Your task to perform on an android device: Open location settings Image 0: 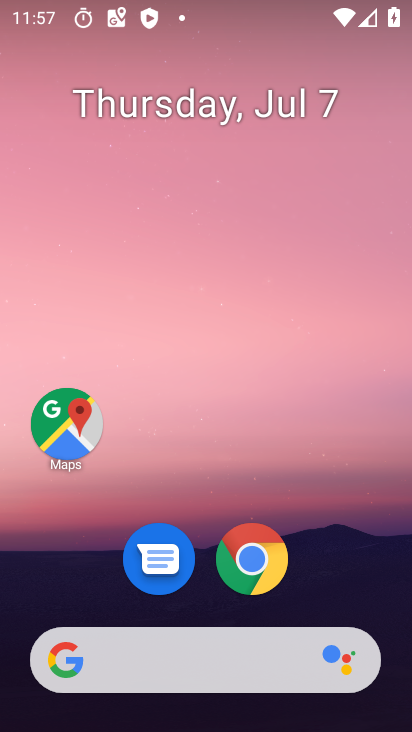
Step 0: drag from (358, 574) to (349, 151)
Your task to perform on an android device: Open location settings Image 1: 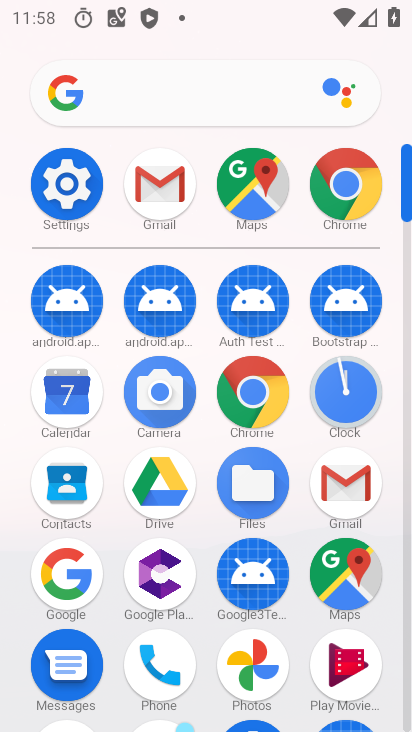
Step 1: click (77, 186)
Your task to perform on an android device: Open location settings Image 2: 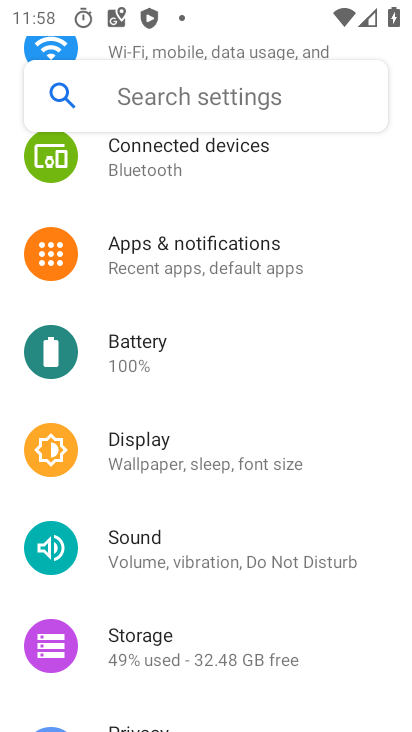
Step 2: drag from (352, 248) to (343, 339)
Your task to perform on an android device: Open location settings Image 3: 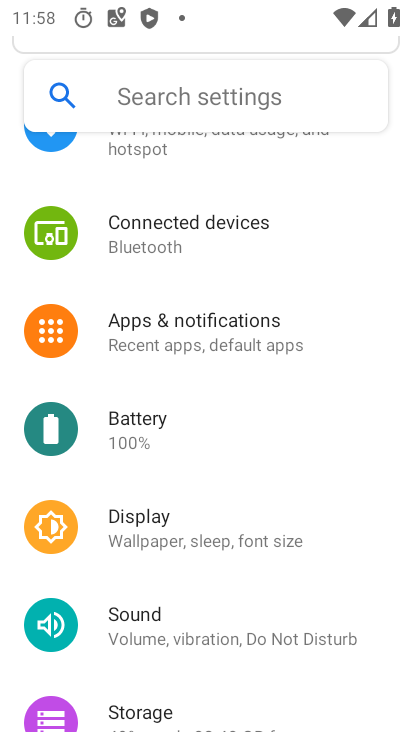
Step 3: drag from (350, 258) to (350, 386)
Your task to perform on an android device: Open location settings Image 4: 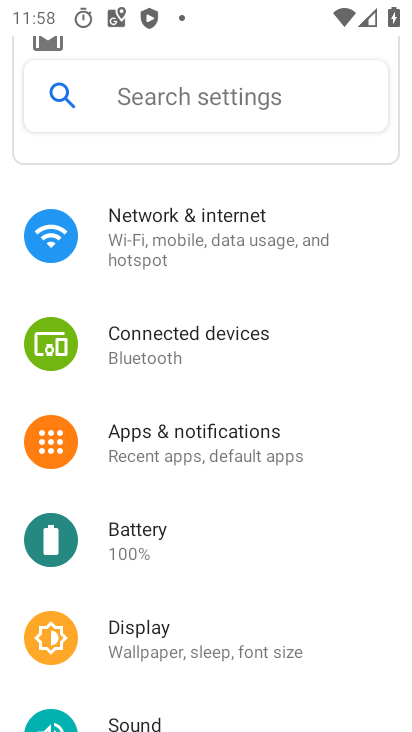
Step 4: drag from (355, 222) to (355, 386)
Your task to perform on an android device: Open location settings Image 5: 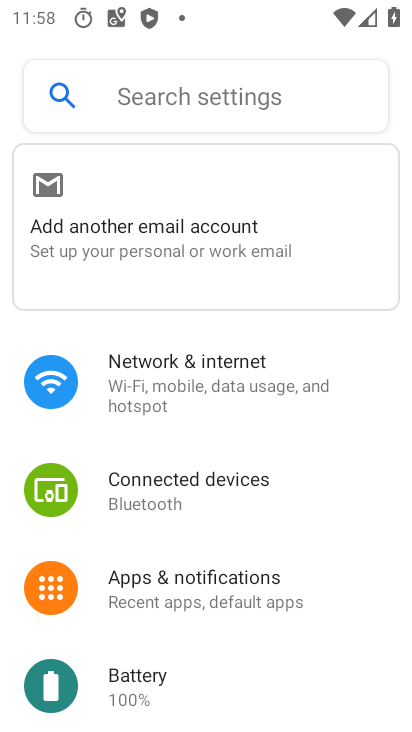
Step 5: drag from (346, 201) to (346, 387)
Your task to perform on an android device: Open location settings Image 6: 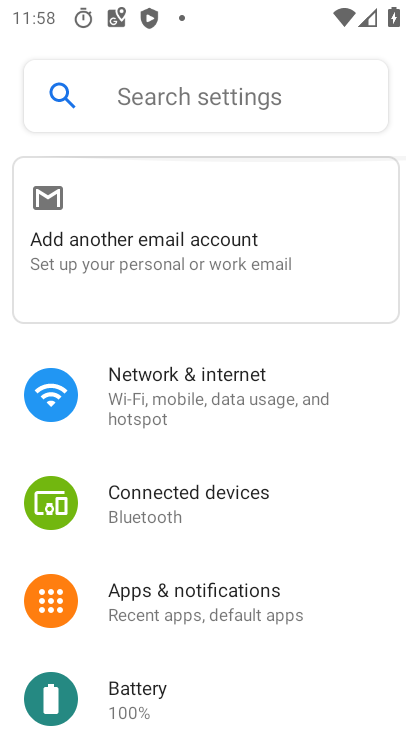
Step 6: drag from (351, 520) to (366, 406)
Your task to perform on an android device: Open location settings Image 7: 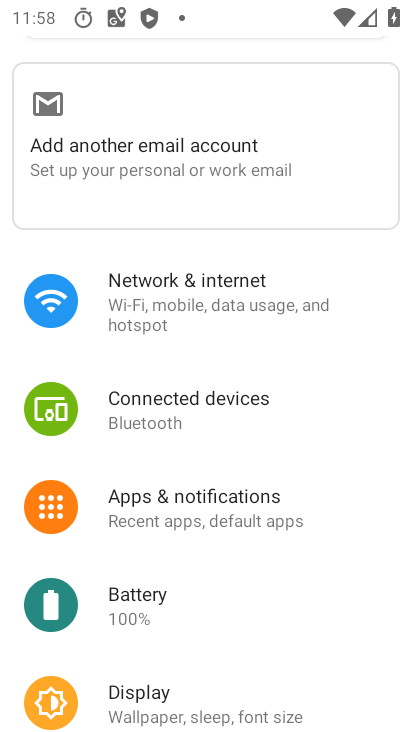
Step 7: drag from (365, 491) to (359, 400)
Your task to perform on an android device: Open location settings Image 8: 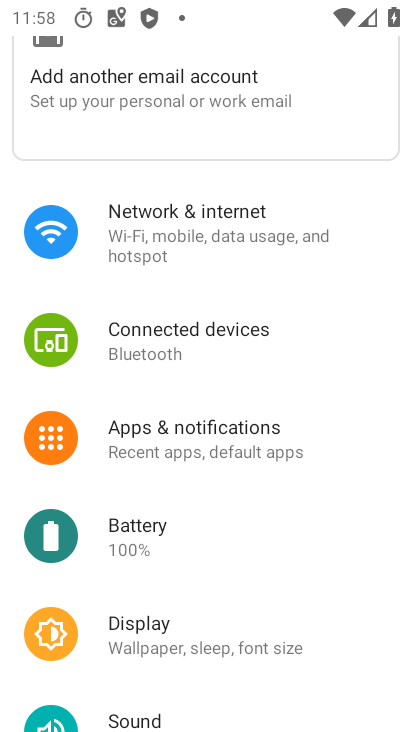
Step 8: drag from (356, 512) to (350, 424)
Your task to perform on an android device: Open location settings Image 9: 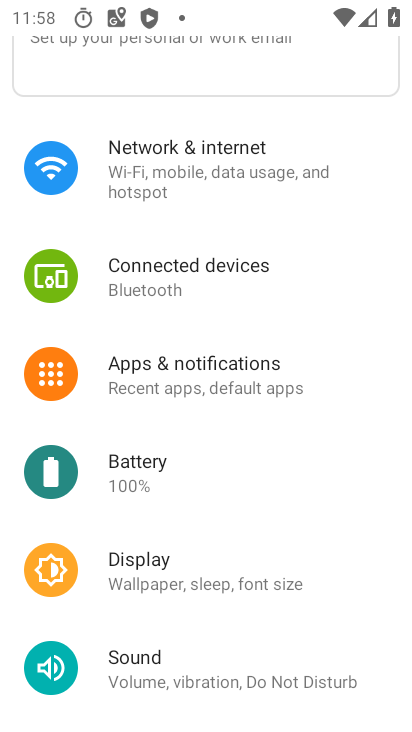
Step 9: drag from (337, 488) to (333, 381)
Your task to perform on an android device: Open location settings Image 10: 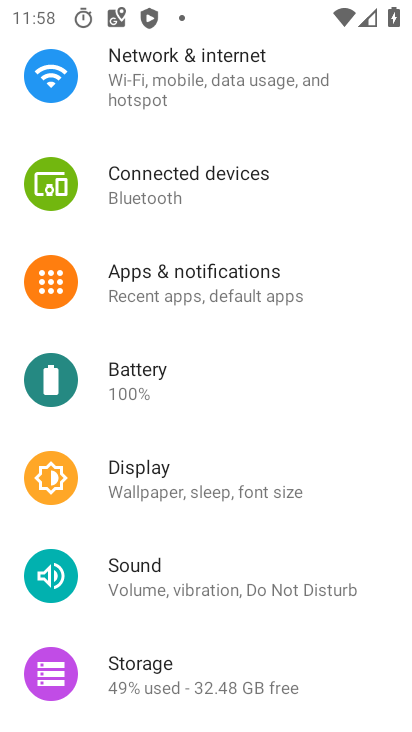
Step 10: drag from (333, 474) to (324, 377)
Your task to perform on an android device: Open location settings Image 11: 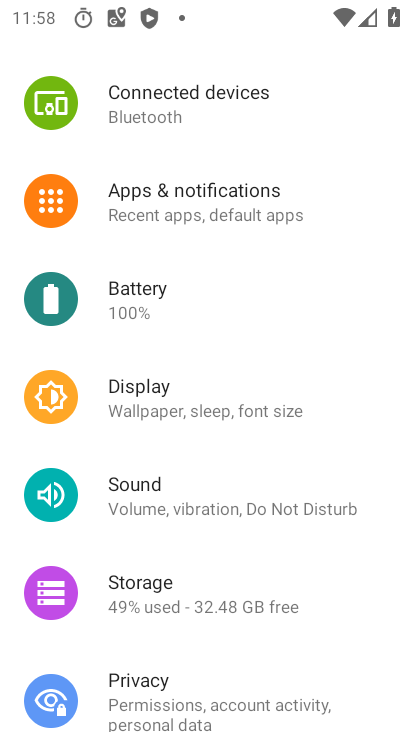
Step 11: drag from (319, 472) to (317, 364)
Your task to perform on an android device: Open location settings Image 12: 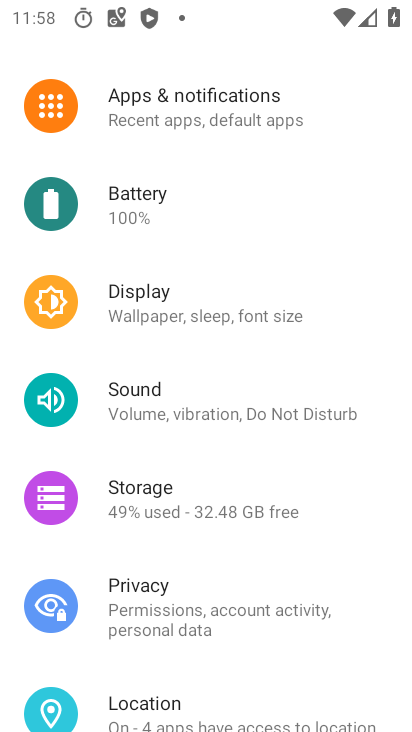
Step 12: drag from (315, 507) to (320, 408)
Your task to perform on an android device: Open location settings Image 13: 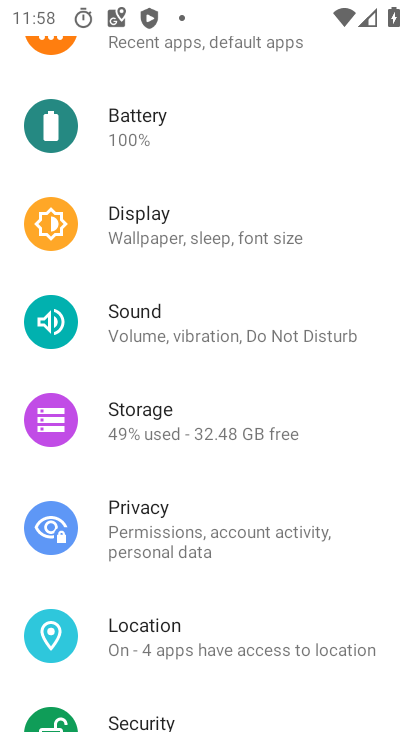
Step 13: drag from (363, 611) to (357, 524)
Your task to perform on an android device: Open location settings Image 14: 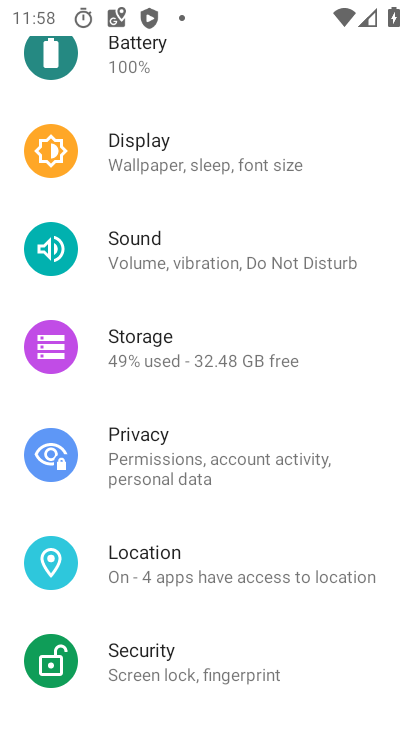
Step 14: click (317, 579)
Your task to perform on an android device: Open location settings Image 15: 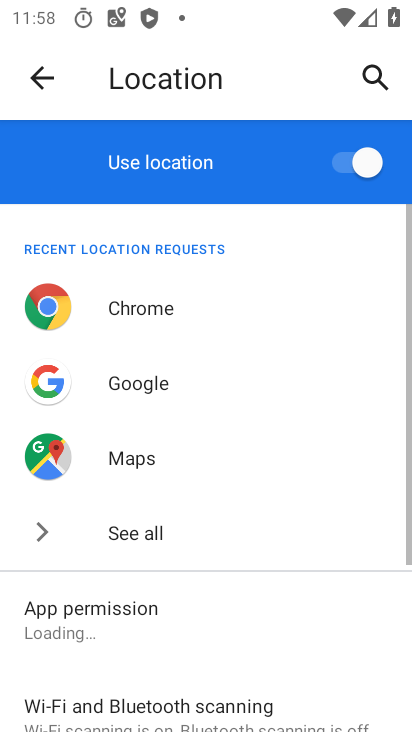
Step 15: task complete